Your task to perform on an android device: open sync settings in chrome Image 0: 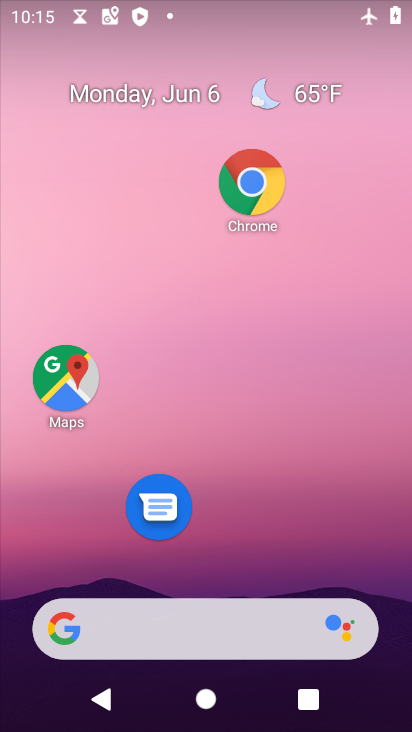
Step 0: click (247, 179)
Your task to perform on an android device: open sync settings in chrome Image 1: 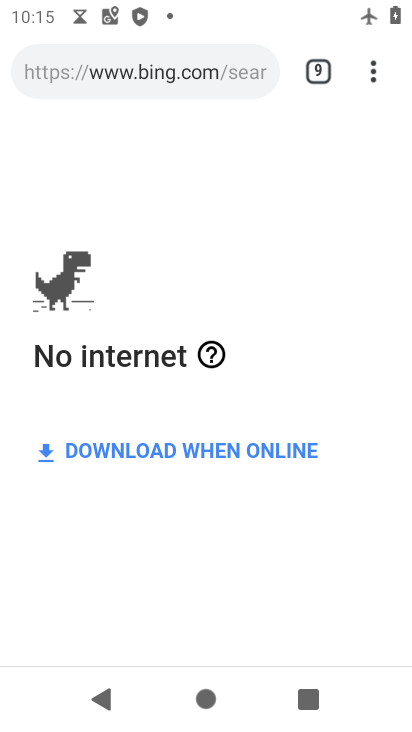
Step 1: click (379, 61)
Your task to perform on an android device: open sync settings in chrome Image 2: 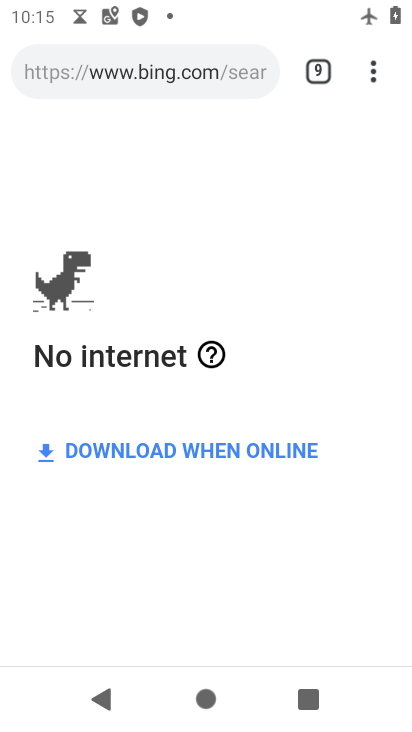
Step 2: click (363, 63)
Your task to perform on an android device: open sync settings in chrome Image 3: 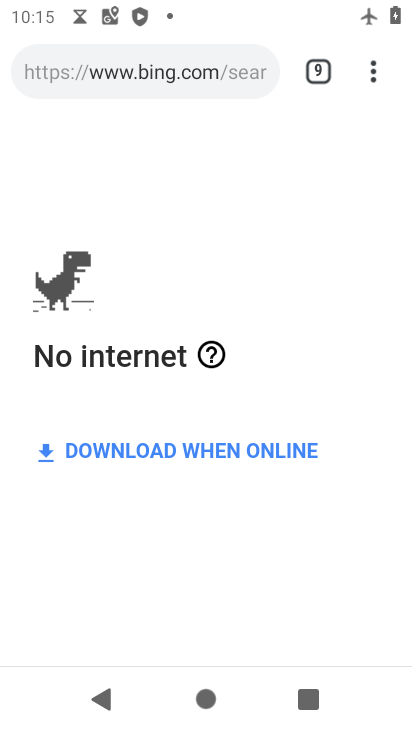
Step 3: click (371, 78)
Your task to perform on an android device: open sync settings in chrome Image 4: 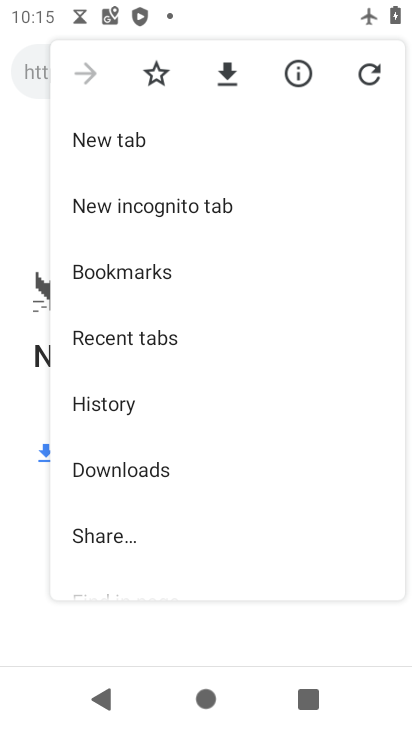
Step 4: drag from (126, 511) to (102, 197)
Your task to perform on an android device: open sync settings in chrome Image 5: 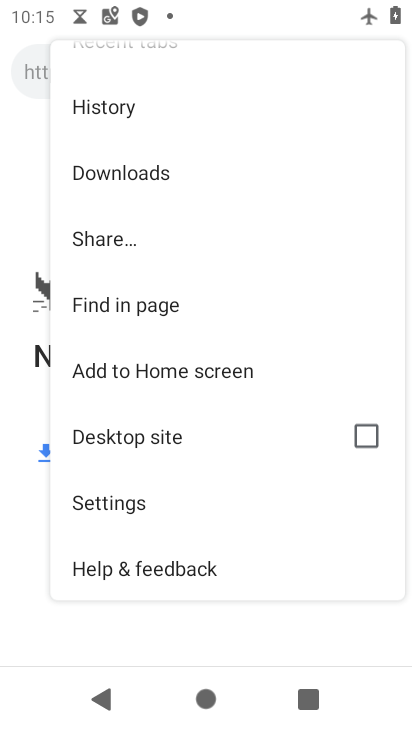
Step 5: click (134, 502)
Your task to perform on an android device: open sync settings in chrome Image 6: 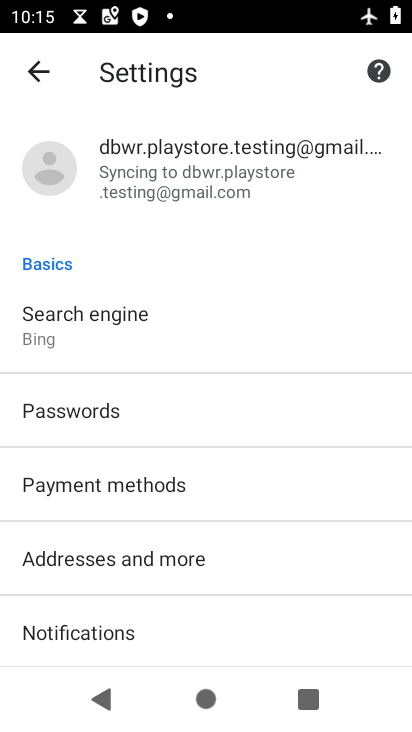
Step 6: click (165, 171)
Your task to perform on an android device: open sync settings in chrome Image 7: 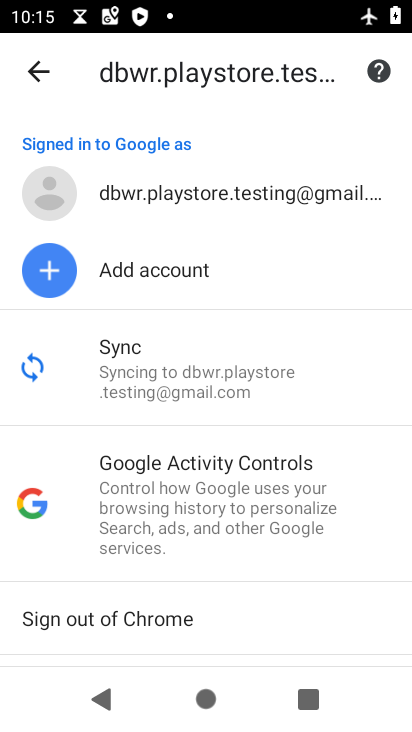
Step 7: click (231, 372)
Your task to perform on an android device: open sync settings in chrome Image 8: 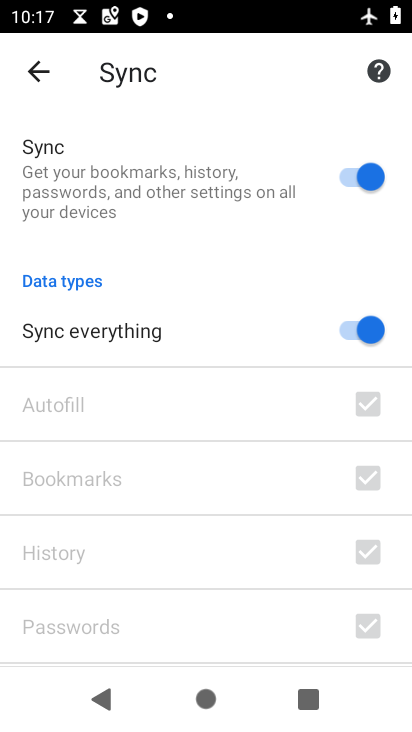
Step 8: task complete